Your task to perform on an android device: remove spam from my inbox in the gmail app Image 0: 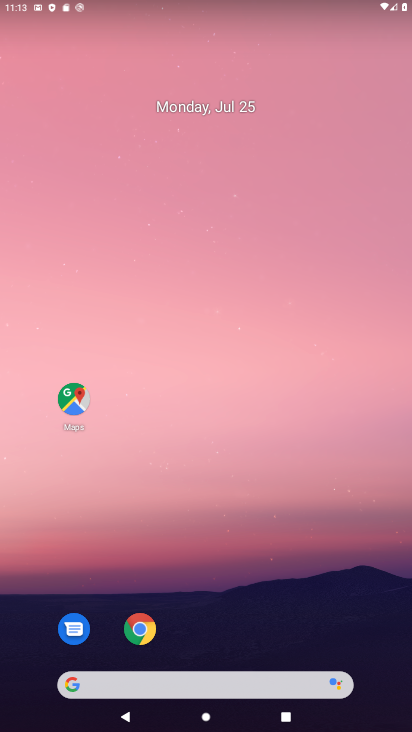
Step 0: drag from (198, 625) to (259, 19)
Your task to perform on an android device: remove spam from my inbox in the gmail app Image 1: 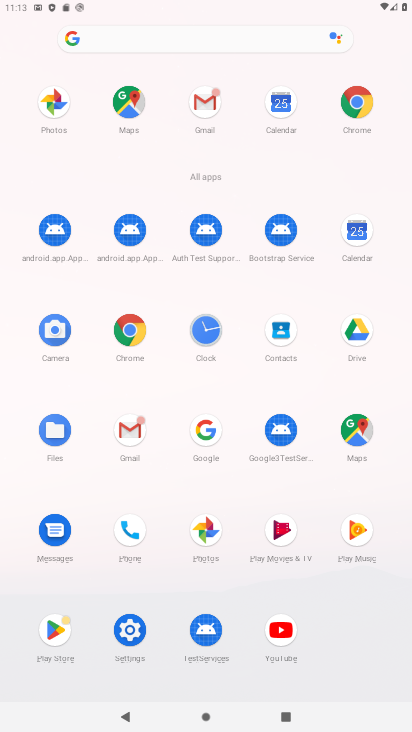
Step 1: click (128, 426)
Your task to perform on an android device: remove spam from my inbox in the gmail app Image 2: 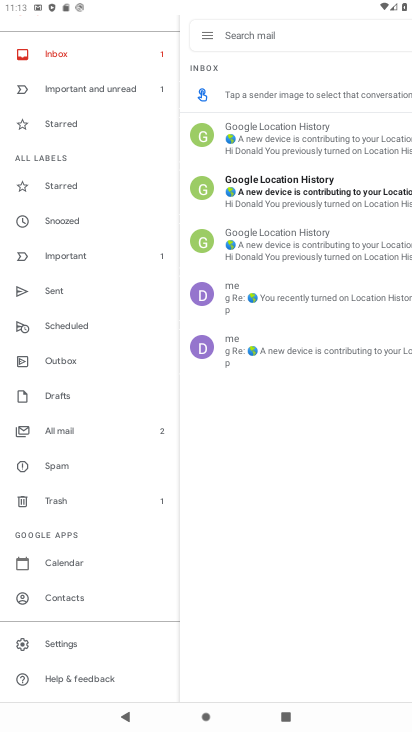
Step 2: click (61, 465)
Your task to perform on an android device: remove spam from my inbox in the gmail app Image 3: 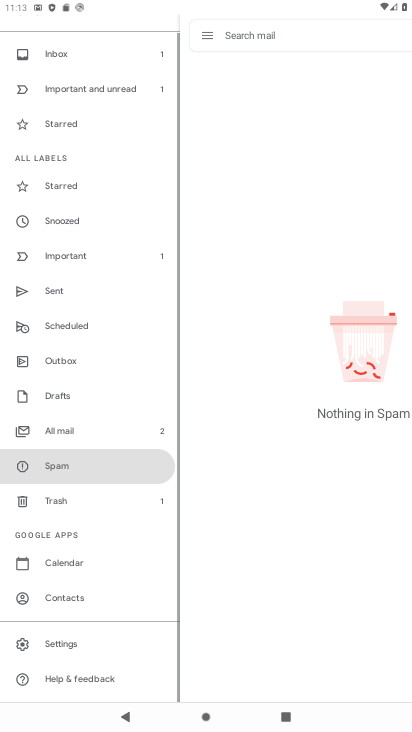
Step 3: task complete